Your task to perform on an android device: Go to ESPN.com Image 0: 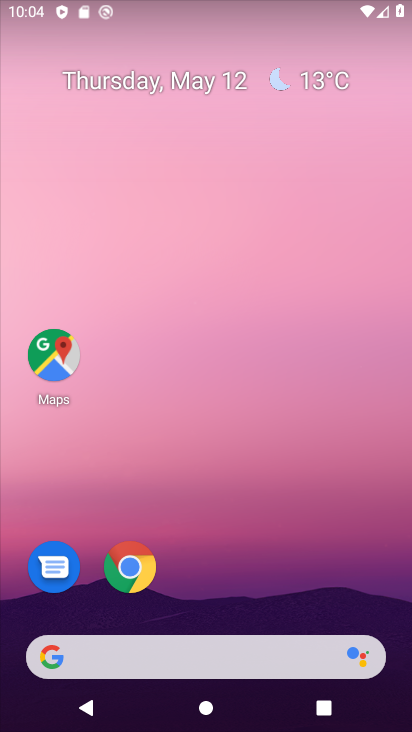
Step 0: click (164, 660)
Your task to perform on an android device: Go to ESPN.com Image 1: 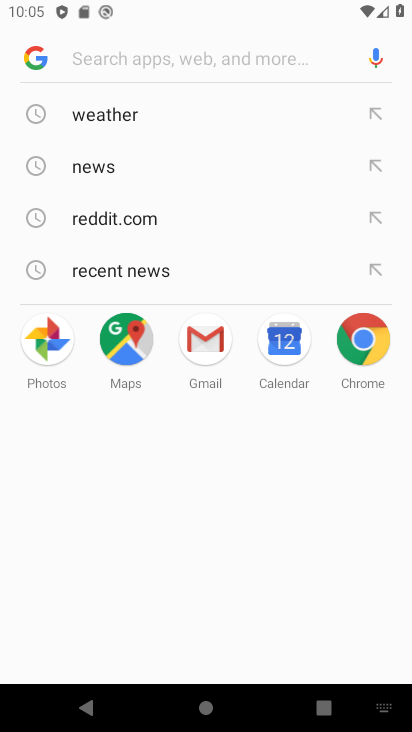
Step 1: type "ESPN.com"
Your task to perform on an android device: Go to ESPN.com Image 2: 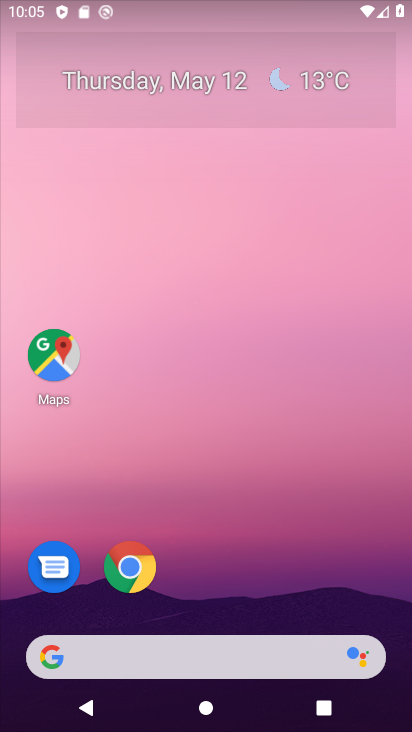
Step 2: click (180, 653)
Your task to perform on an android device: Go to ESPN.com Image 3: 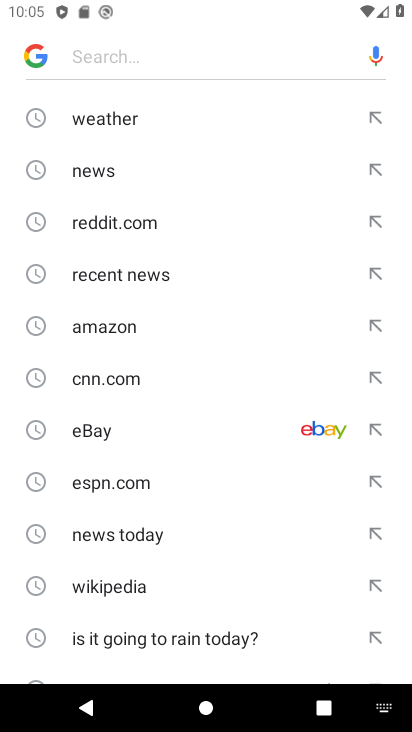
Step 3: click (137, 487)
Your task to perform on an android device: Go to ESPN.com Image 4: 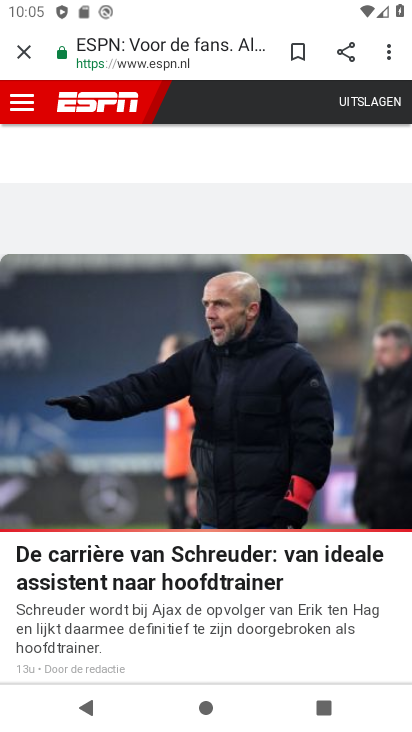
Step 4: task complete